Your task to perform on an android device: Open the calendar and show me this week's events? Image 0: 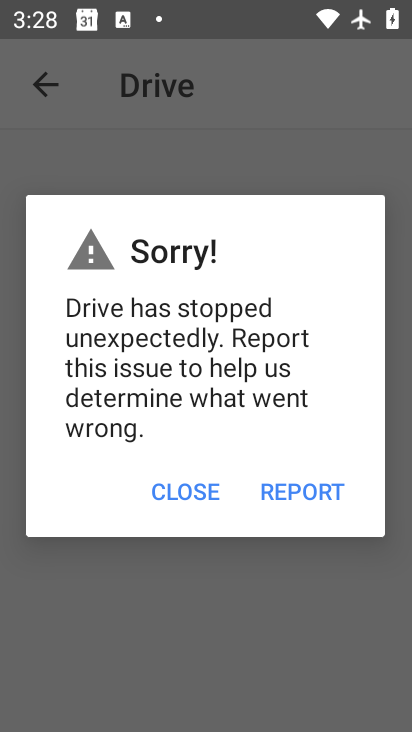
Step 0: press home button
Your task to perform on an android device: Open the calendar and show me this week's events? Image 1: 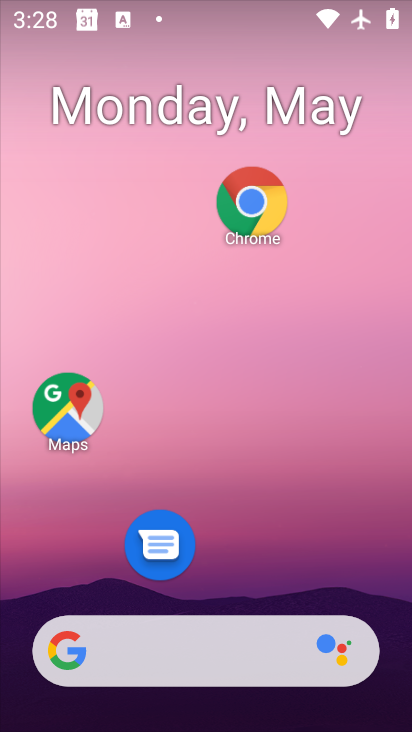
Step 1: drag from (262, 593) to (253, 282)
Your task to perform on an android device: Open the calendar and show me this week's events? Image 2: 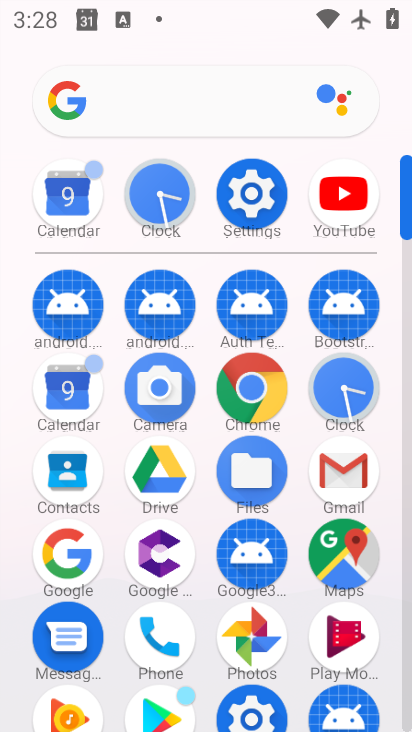
Step 2: click (77, 408)
Your task to perform on an android device: Open the calendar and show me this week's events? Image 3: 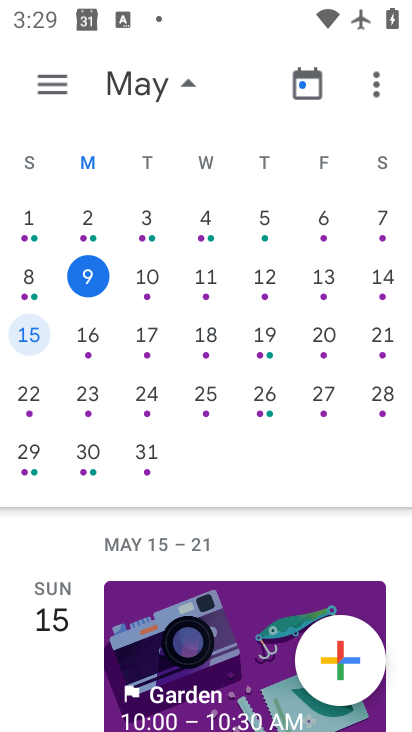
Step 3: click (253, 265)
Your task to perform on an android device: Open the calendar and show me this week's events? Image 4: 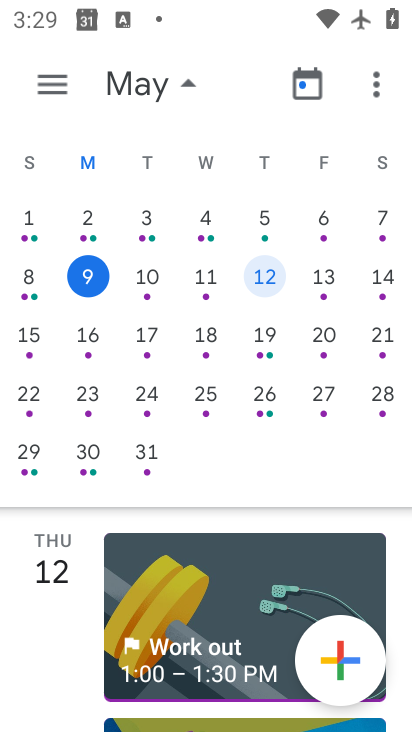
Step 4: click (316, 285)
Your task to perform on an android device: Open the calendar and show me this week's events? Image 5: 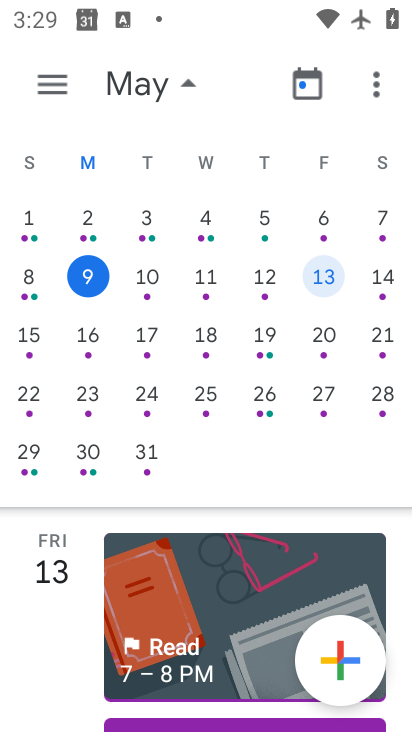
Step 5: task complete